Your task to perform on an android device: Go to location settings Image 0: 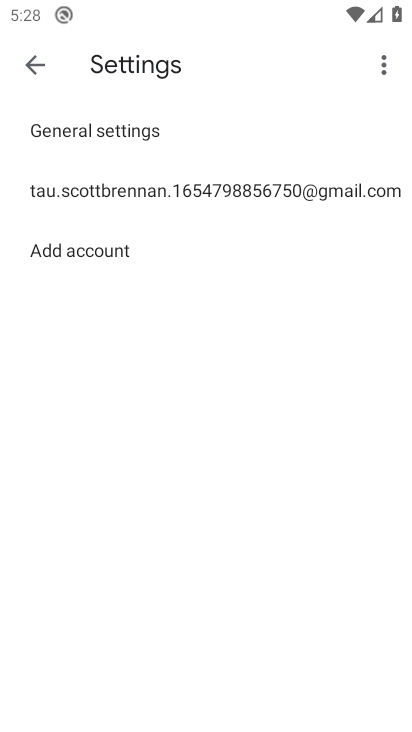
Step 0: click (24, 59)
Your task to perform on an android device: Go to location settings Image 1: 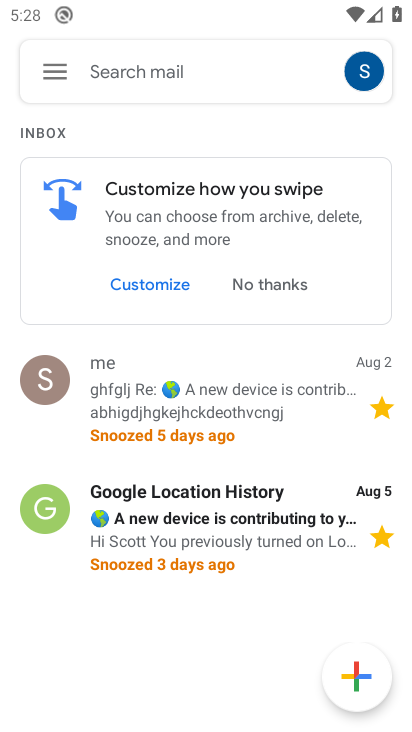
Step 1: press back button
Your task to perform on an android device: Go to location settings Image 2: 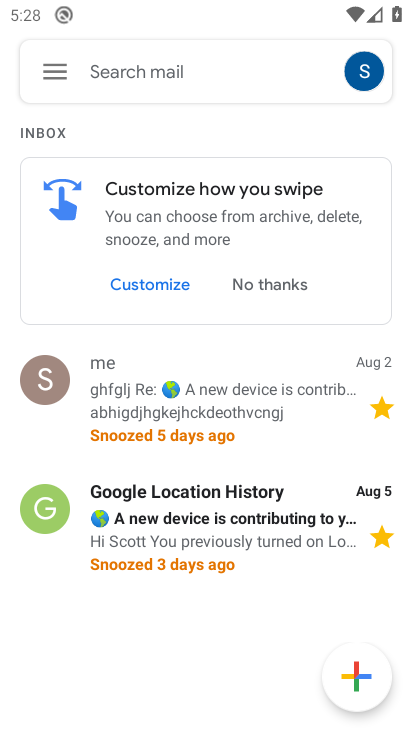
Step 2: press back button
Your task to perform on an android device: Go to location settings Image 3: 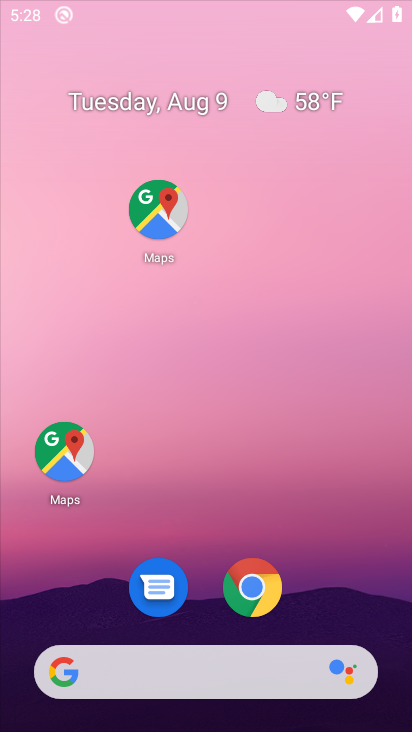
Step 3: press back button
Your task to perform on an android device: Go to location settings Image 4: 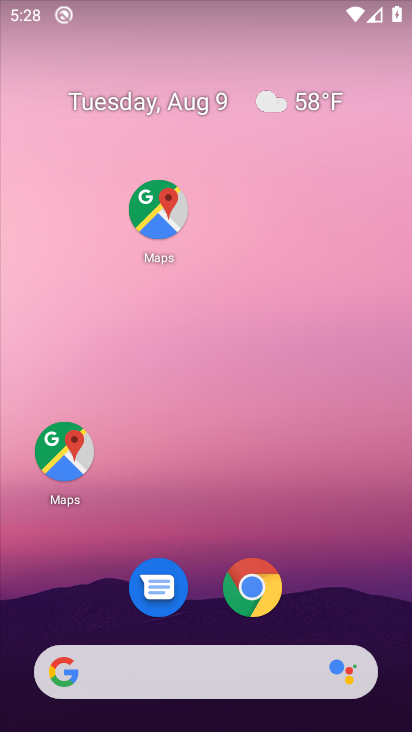
Step 4: drag from (194, 610) to (166, 44)
Your task to perform on an android device: Go to location settings Image 5: 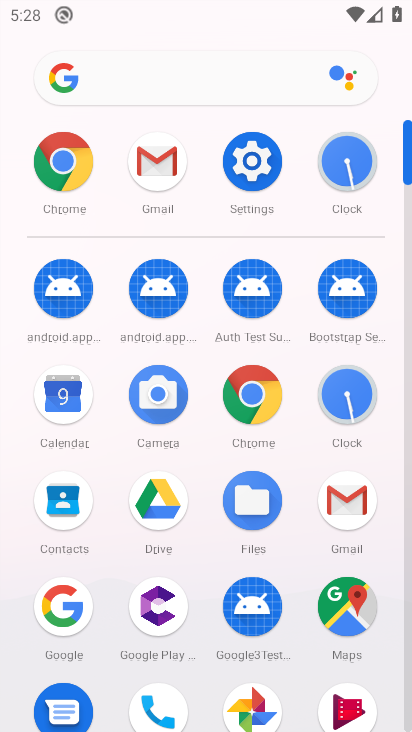
Step 5: click (249, 161)
Your task to perform on an android device: Go to location settings Image 6: 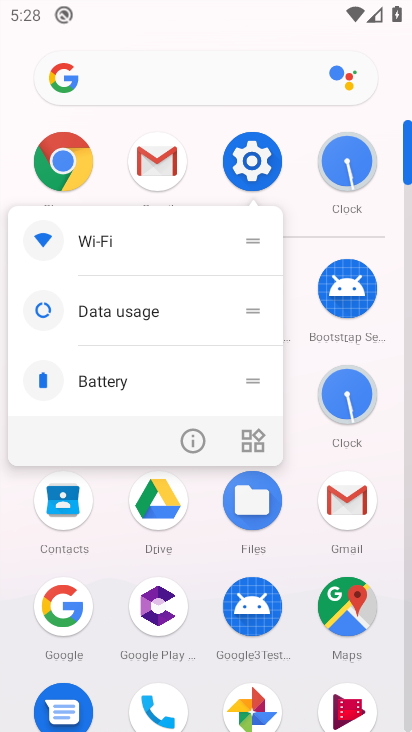
Step 6: click (248, 160)
Your task to perform on an android device: Go to location settings Image 7: 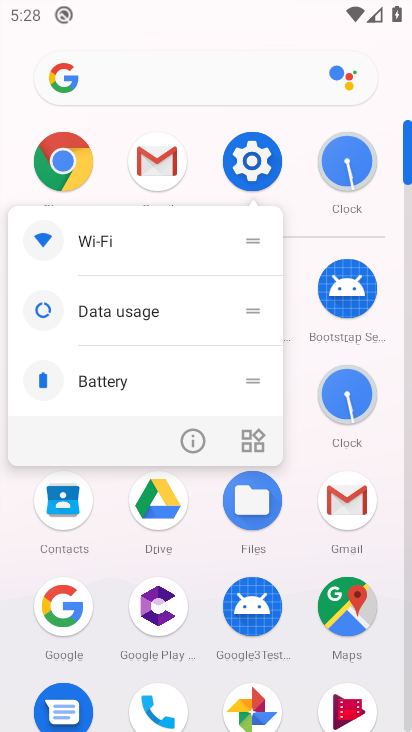
Step 7: click (248, 155)
Your task to perform on an android device: Go to location settings Image 8: 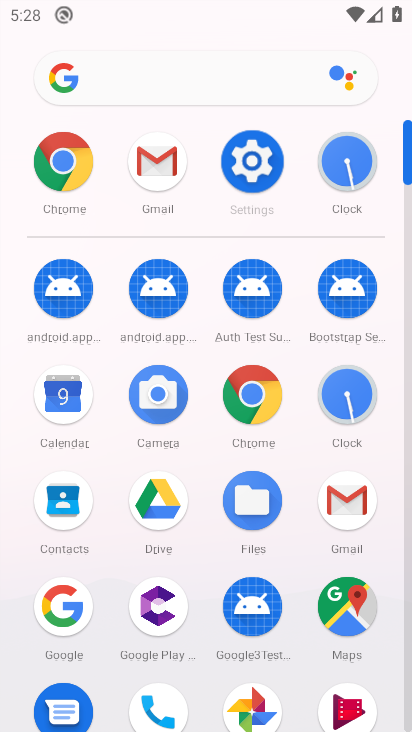
Step 8: click (252, 157)
Your task to perform on an android device: Go to location settings Image 9: 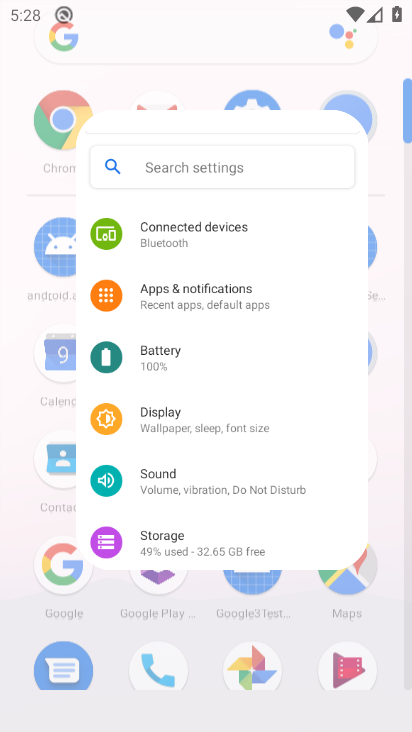
Step 9: click (257, 153)
Your task to perform on an android device: Go to location settings Image 10: 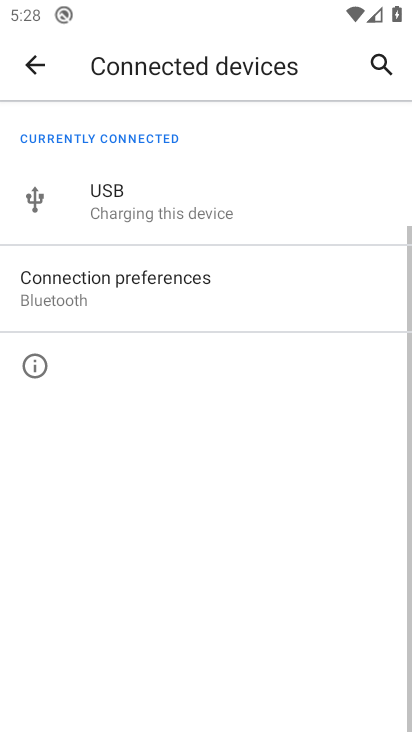
Step 10: click (32, 60)
Your task to perform on an android device: Go to location settings Image 11: 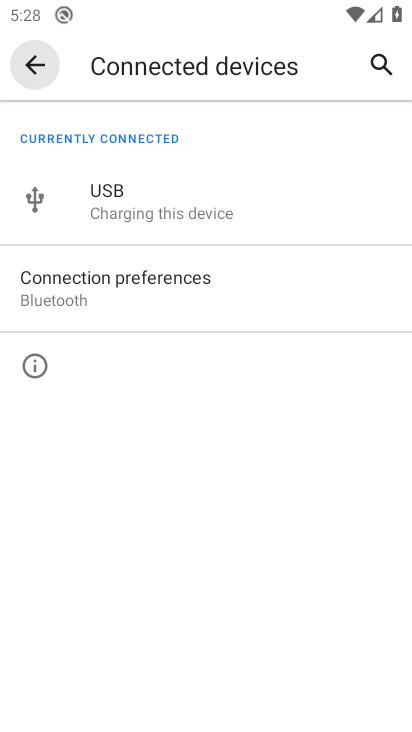
Step 11: click (37, 65)
Your task to perform on an android device: Go to location settings Image 12: 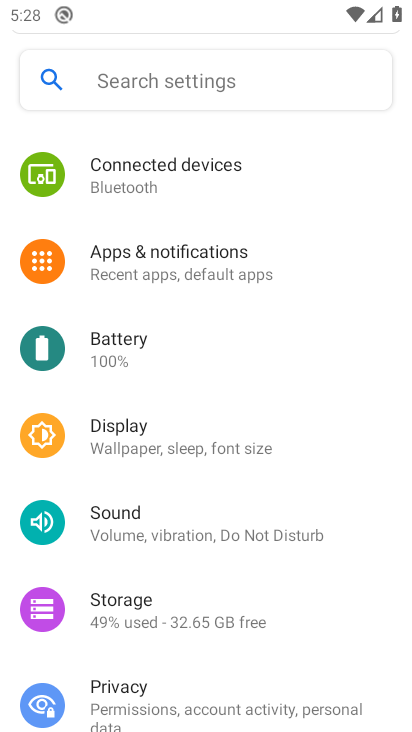
Step 12: drag from (97, 483) to (38, 288)
Your task to perform on an android device: Go to location settings Image 13: 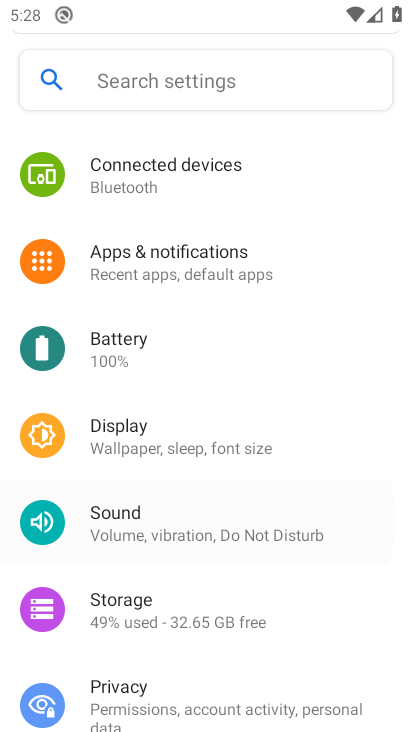
Step 13: drag from (146, 522) to (175, 358)
Your task to perform on an android device: Go to location settings Image 14: 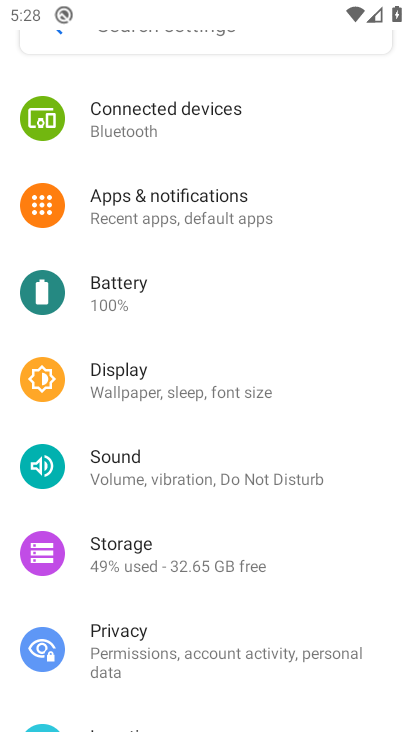
Step 14: drag from (172, 511) to (120, 171)
Your task to perform on an android device: Go to location settings Image 15: 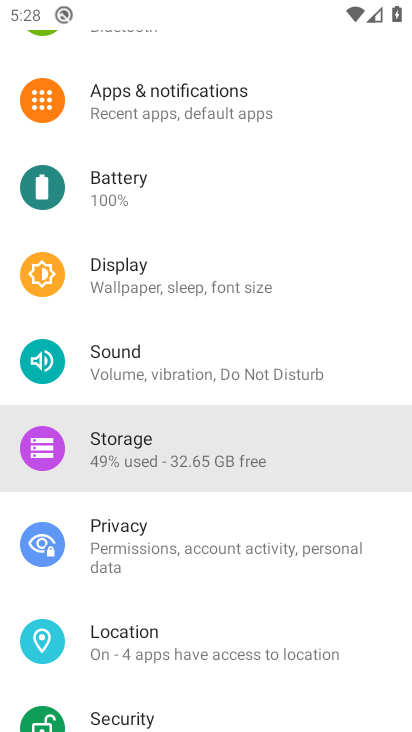
Step 15: drag from (177, 386) to (206, 176)
Your task to perform on an android device: Go to location settings Image 16: 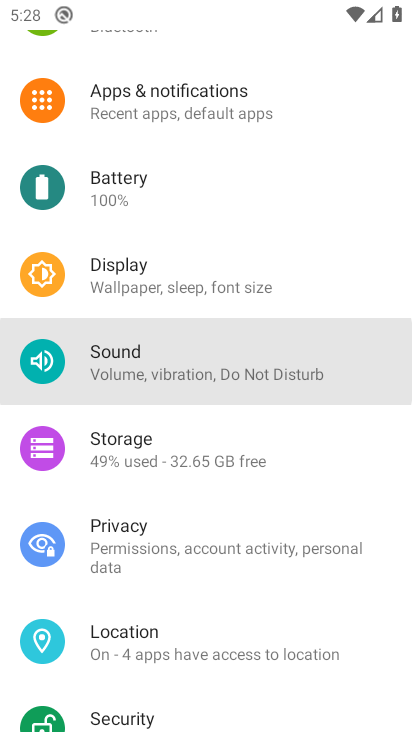
Step 16: drag from (206, 468) to (193, 359)
Your task to perform on an android device: Go to location settings Image 17: 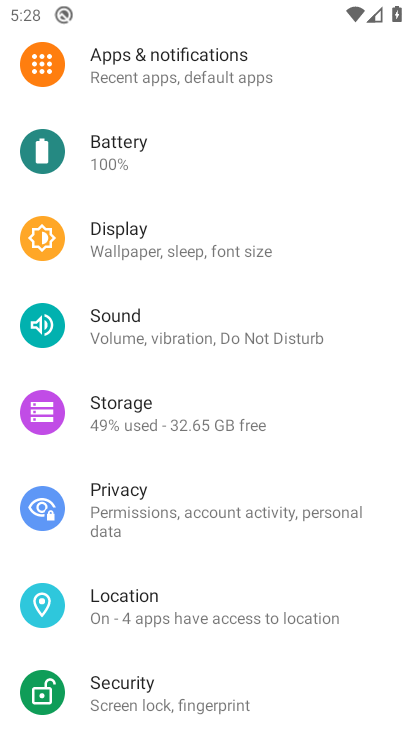
Step 17: click (132, 615)
Your task to perform on an android device: Go to location settings Image 18: 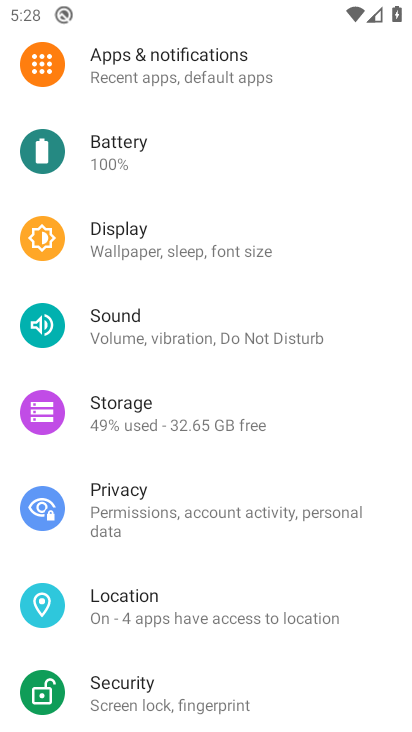
Step 18: click (147, 615)
Your task to perform on an android device: Go to location settings Image 19: 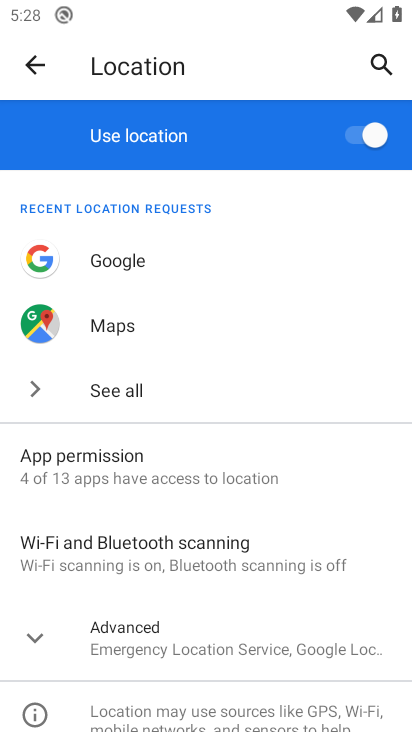
Step 19: task complete